Your task to perform on an android device: Go to privacy settings Image 0: 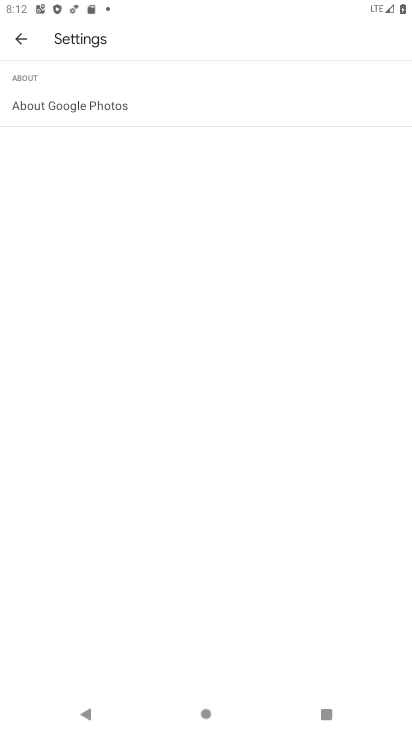
Step 0: press home button
Your task to perform on an android device: Go to privacy settings Image 1: 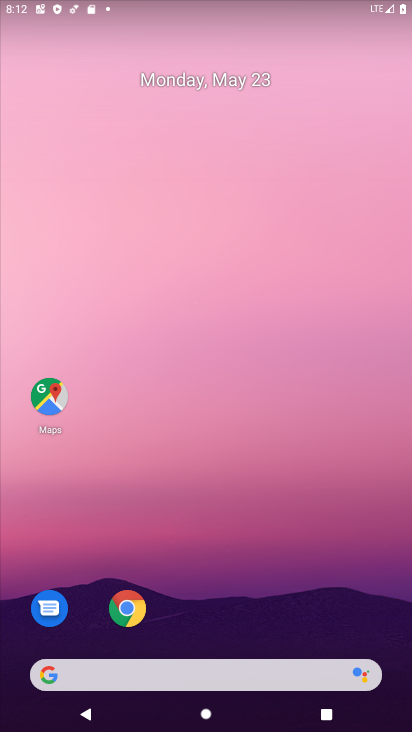
Step 1: drag from (180, 674) to (173, 104)
Your task to perform on an android device: Go to privacy settings Image 2: 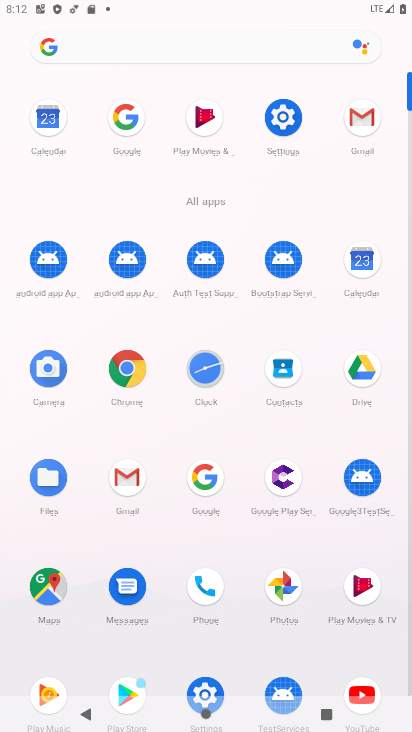
Step 2: click (211, 677)
Your task to perform on an android device: Go to privacy settings Image 3: 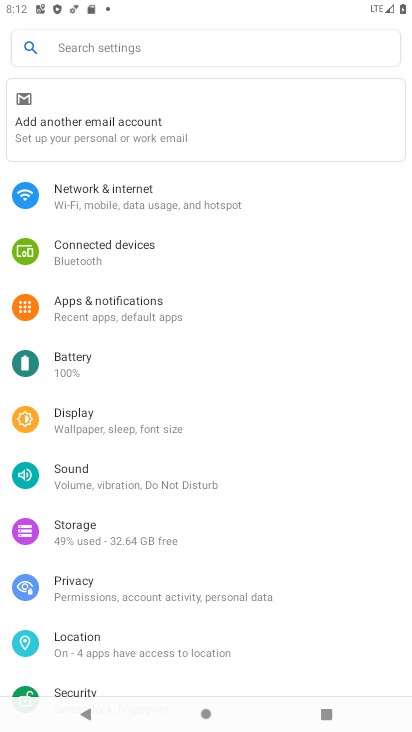
Step 3: click (73, 603)
Your task to perform on an android device: Go to privacy settings Image 4: 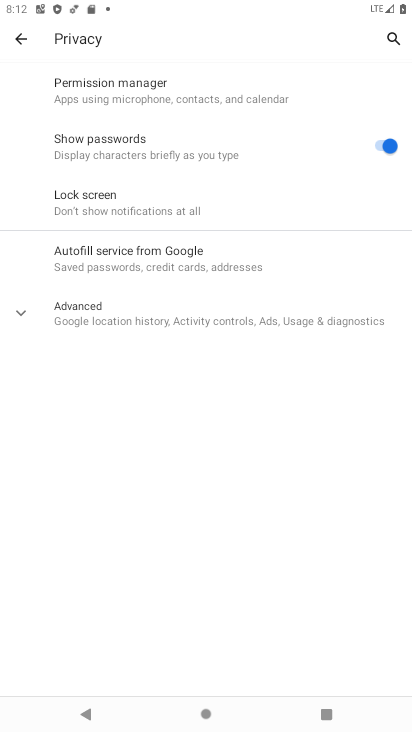
Step 4: task complete